Your task to perform on an android device: Open Maps and search for coffee Image 0: 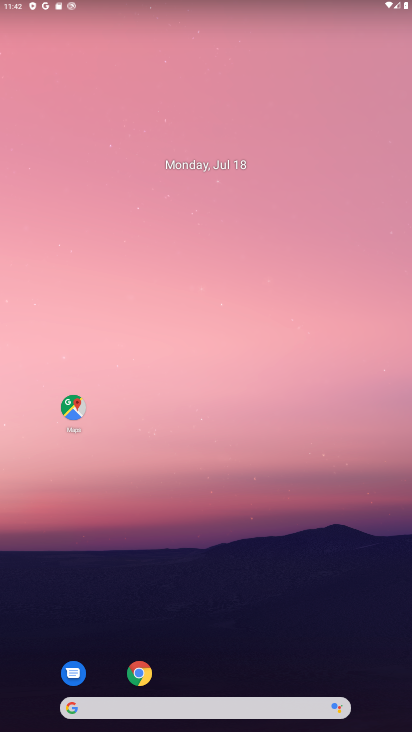
Step 0: click (68, 410)
Your task to perform on an android device: Open Maps and search for coffee Image 1: 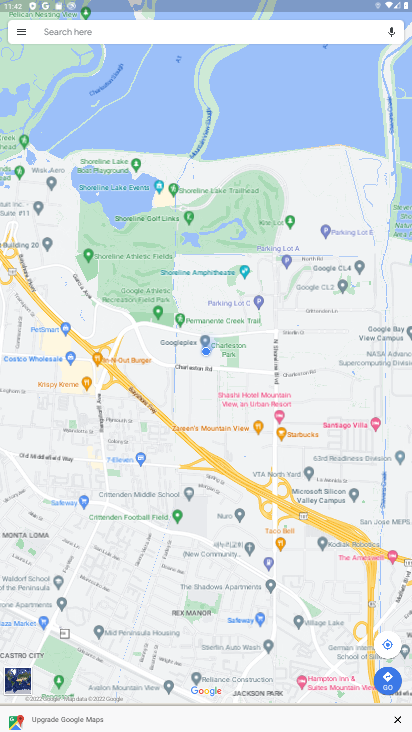
Step 1: click (219, 33)
Your task to perform on an android device: Open Maps and search for coffee Image 2: 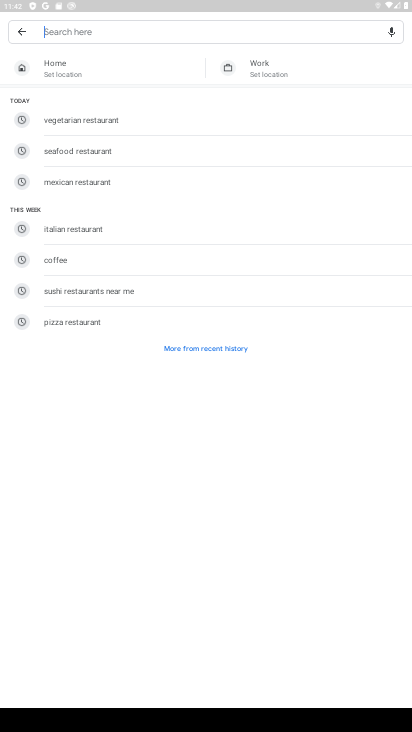
Step 2: click (96, 261)
Your task to perform on an android device: Open Maps and search for coffee Image 3: 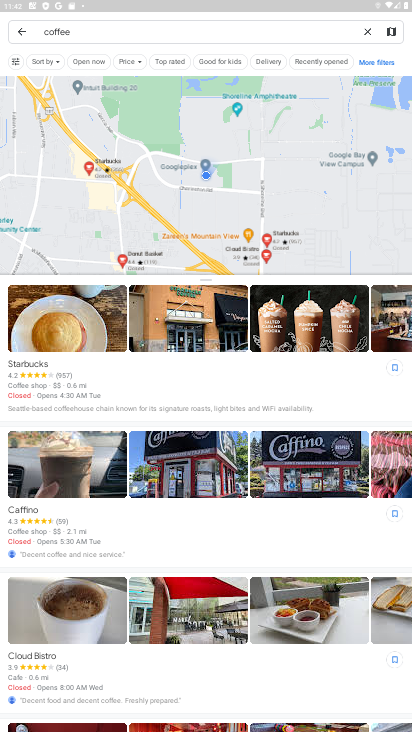
Step 3: task complete